Your task to perform on an android device: Do I have any events today? Image 0: 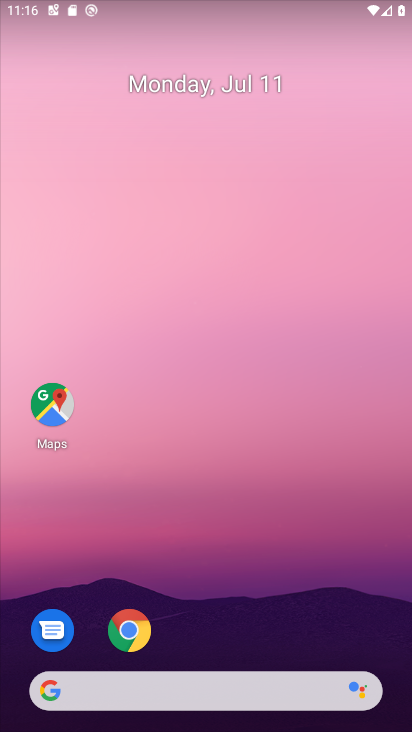
Step 0: drag from (250, 631) to (180, 24)
Your task to perform on an android device: Do I have any events today? Image 1: 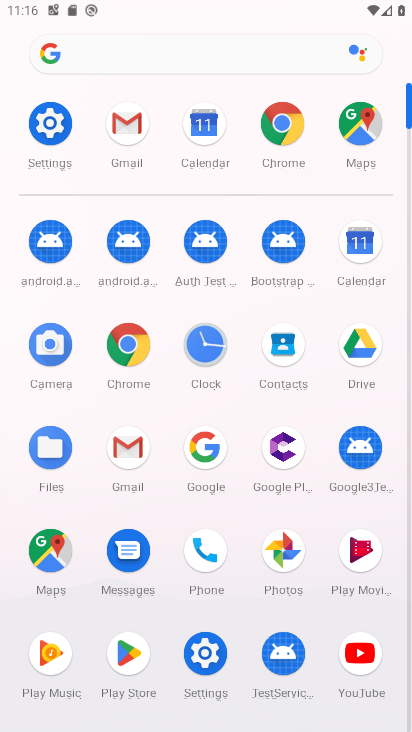
Step 1: click (364, 257)
Your task to perform on an android device: Do I have any events today? Image 2: 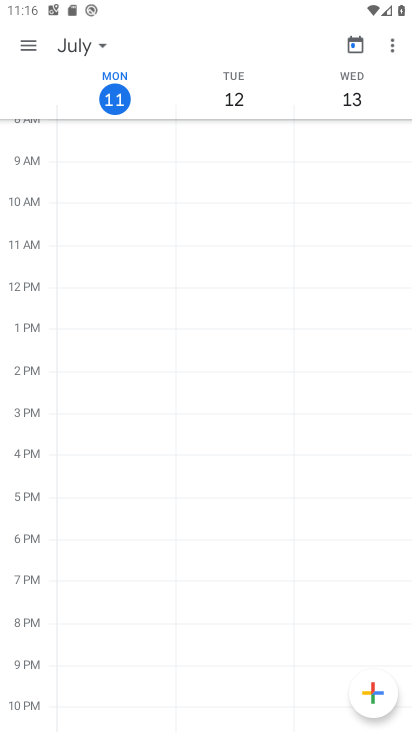
Step 2: click (21, 39)
Your task to perform on an android device: Do I have any events today? Image 3: 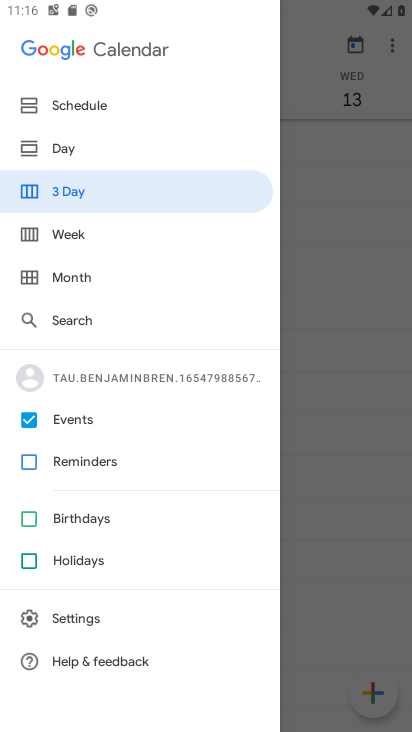
Step 3: click (92, 151)
Your task to perform on an android device: Do I have any events today? Image 4: 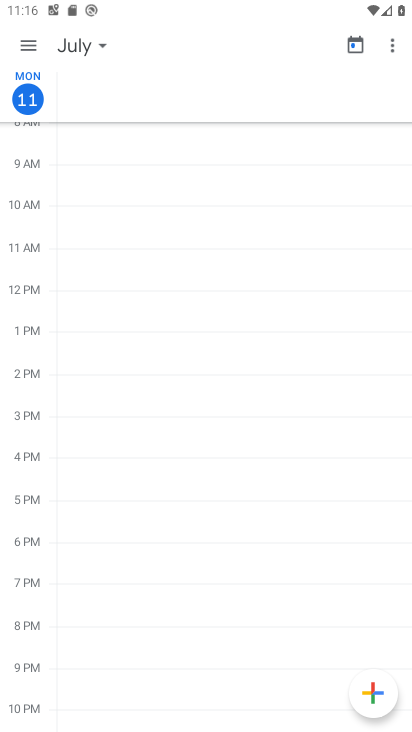
Step 4: task complete